Your task to perform on an android device: delete a single message in the gmail app Image 0: 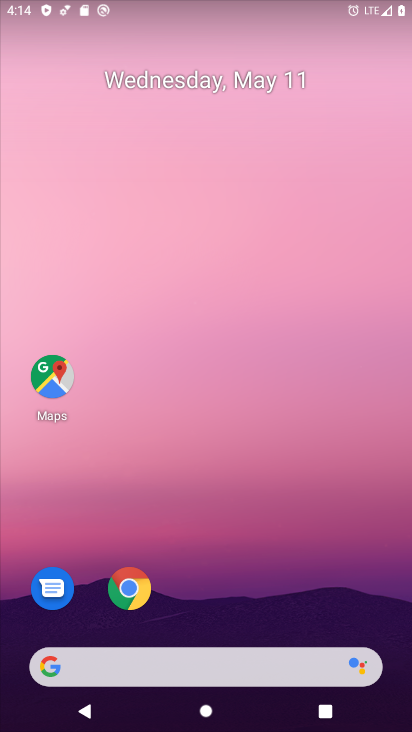
Step 0: drag from (261, 616) to (345, 81)
Your task to perform on an android device: delete a single message in the gmail app Image 1: 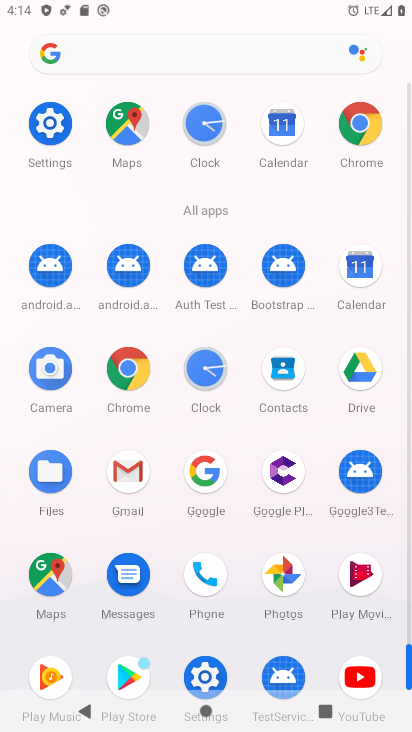
Step 1: click (137, 478)
Your task to perform on an android device: delete a single message in the gmail app Image 2: 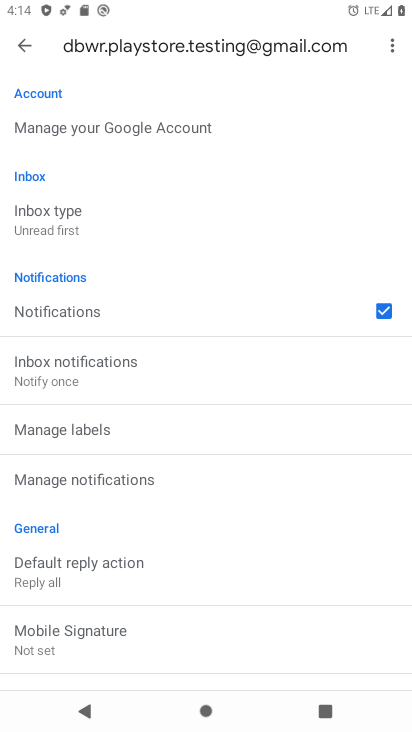
Step 2: click (36, 37)
Your task to perform on an android device: delete a single message in the gmail app Image 3: 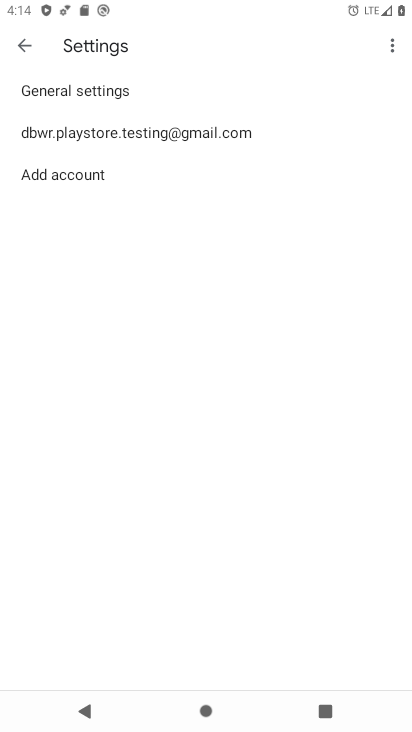
Step 3: click (36, 37)
Your task to perform on an android device: delete a single message in the gmail app Image 4: 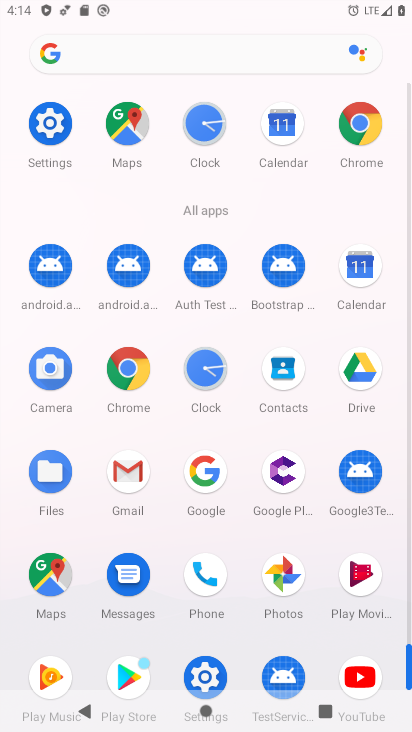
Step 4: click (133, 490)
Your task to perform on an android device: delete a single message in the gmail app Image 5: 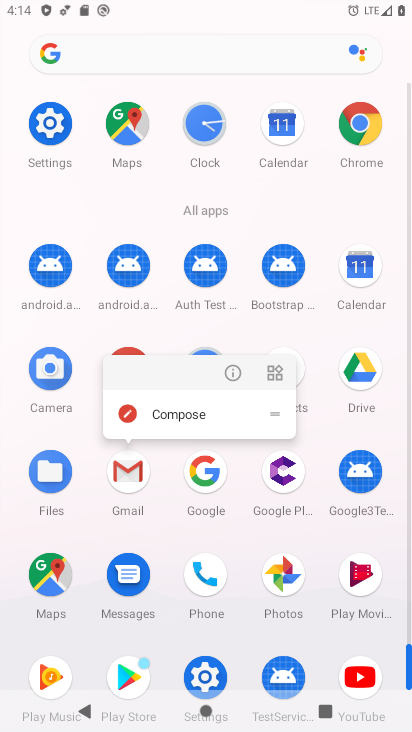
Step 5: click (132, 477)
Your task to perform on an android device: delete a single message in the gmail app Image 6: 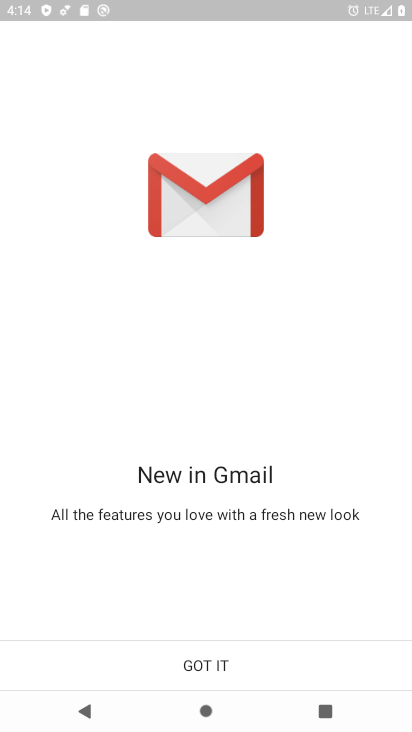
Step 6: click (193, 673)
Your task to perform on an android device: delete a single message in the gmail app Image 7: 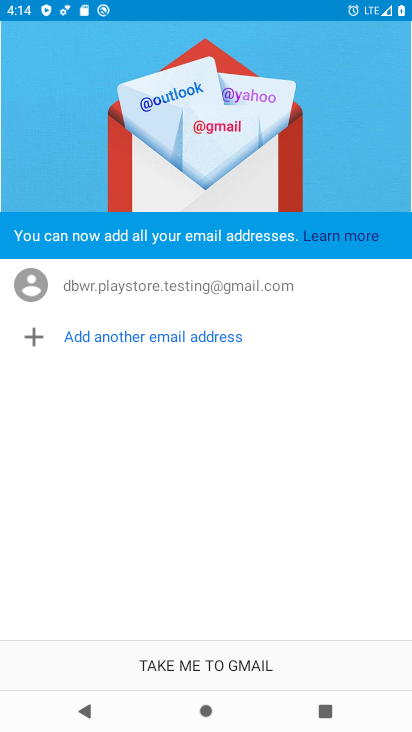
Step 7: click (193, 672)
Your task to perform on an android device: delete a single message in the gmail app Image 8: 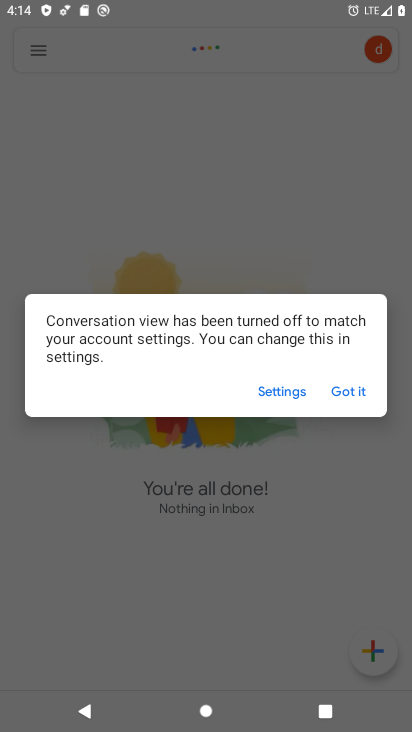
Step 8: click (342, 394)
Your task to perform on an android device: delete a single message in the gmail app Image 9: 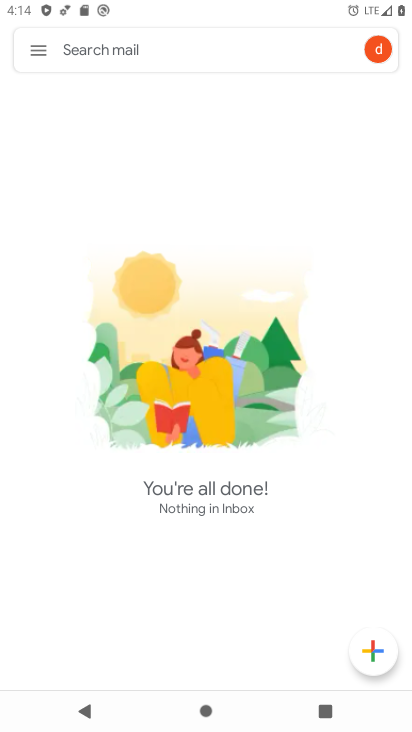
Step 9: task complete